Your task to perform on an android device: What's the weather? Image 0: 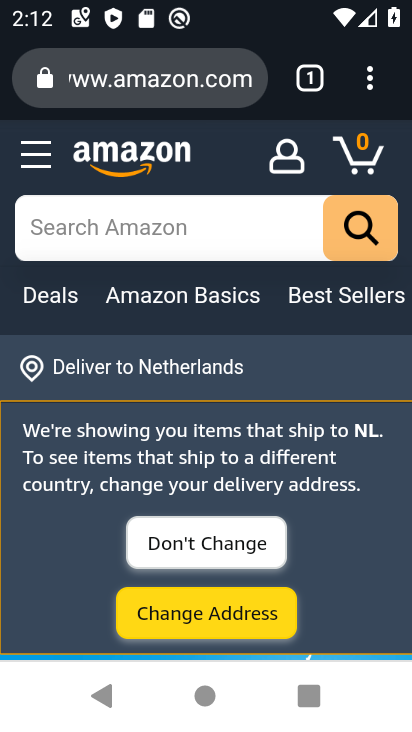
Step 0: press home button
Your task to perform on an android device: What's the weather? Image 1: 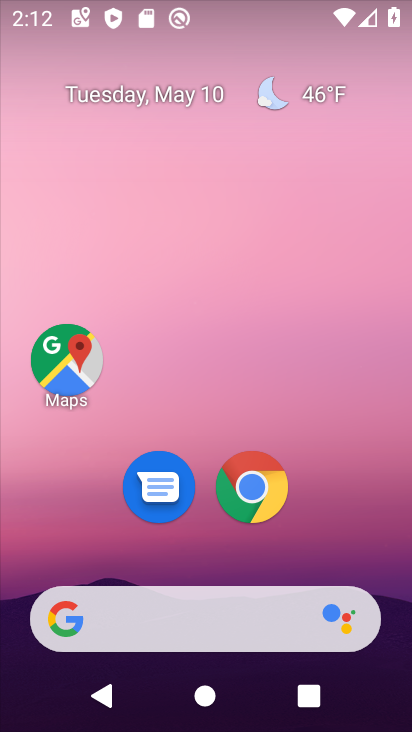
Step 1: click (334, 93)
Your task to perform on an android device: What's the weather? Image 2: 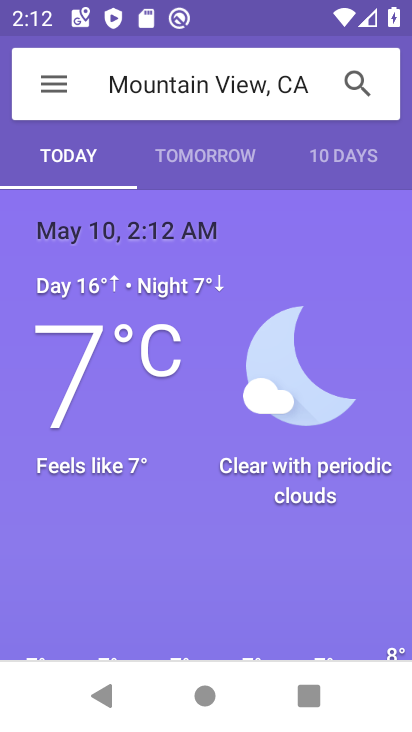
Step 2: task complete